Your task to perform on an android device: Open CNN.com Image 0: 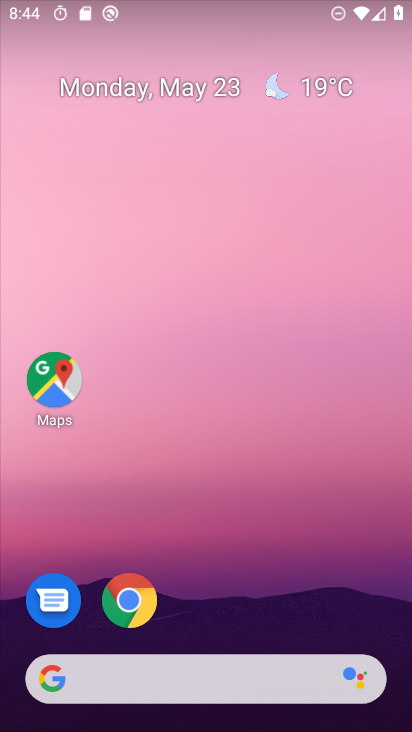
Step 0: click (122, 603)
Your task to perform on an android device: Open CNN.com Image 1: 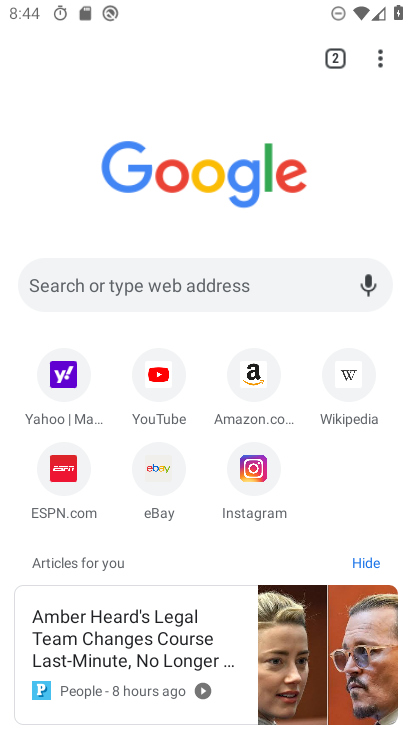
Step 1: click (179, 281)
Your task to perform on an android device: Open CNN.com Image 2: 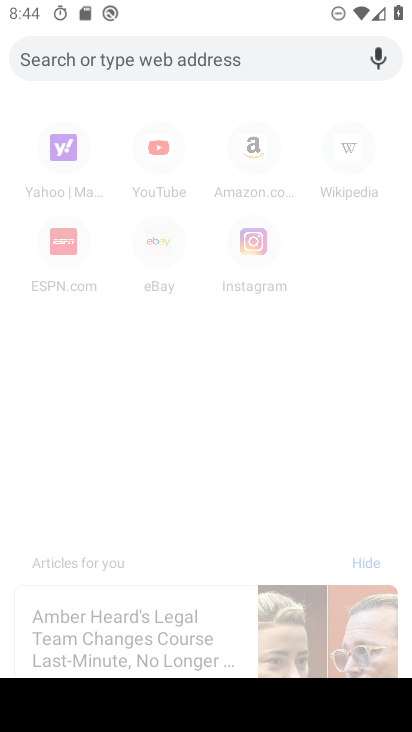
Step 2: type "CNN.com"
Your task to perform on an android device: Open CNN.com Image 3: 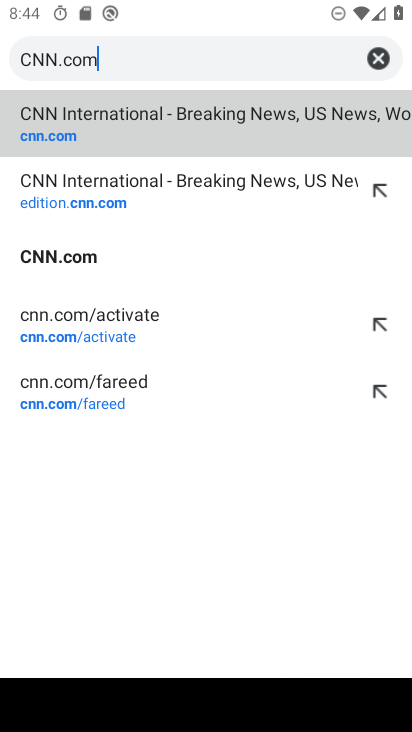
Step 3: type ""
Your task to perform on an android device: Open CNN.com Image 4: 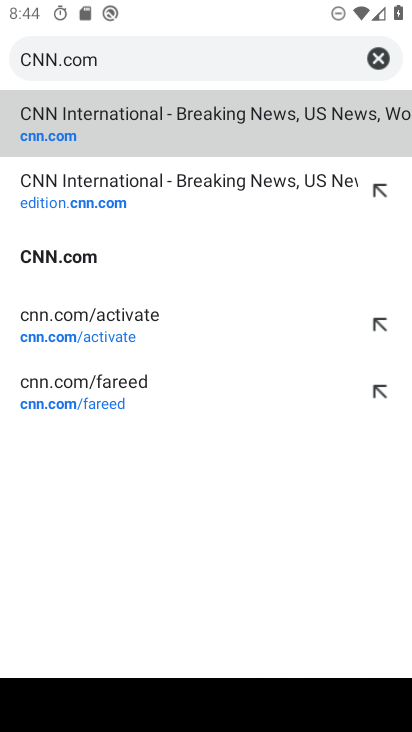
Step 4: click (99, 120)
Your task to perform on an android device: Open CNN.com Image 5: 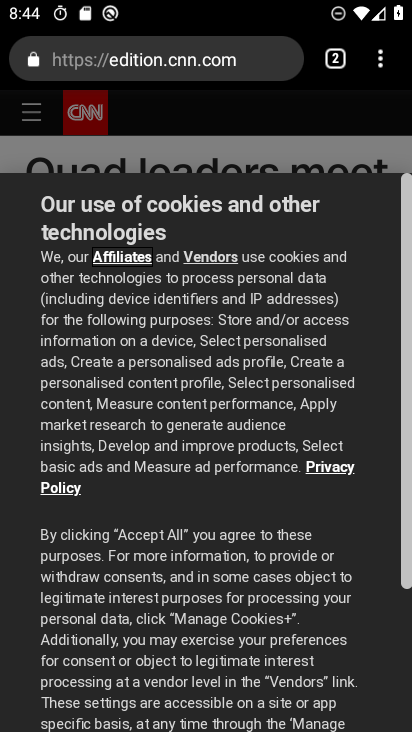
Step 5: task complete